Your task to perform on an android device: Open network settings Image 0: 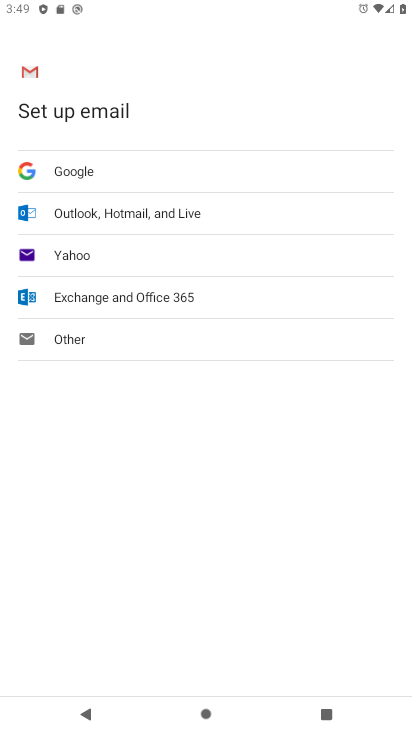
Step 0: press home button
Your task to perform on an android device: Open network settings Image 1: 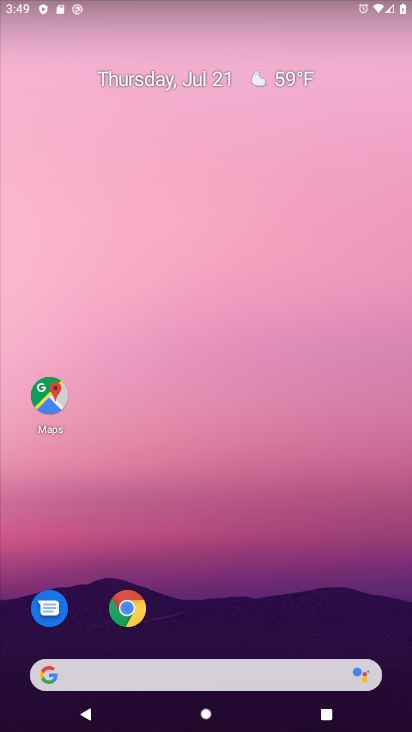
Step 1: drag from (212, 680) to (283, 156)
Your task to perform on an android device: Open network settings Image 2: 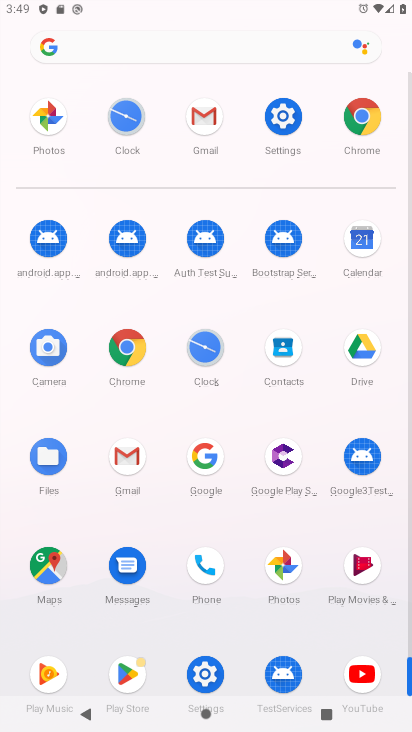
Step 2: click (288, 117)
Your task to perform on an android device: Open network settings Image 3: 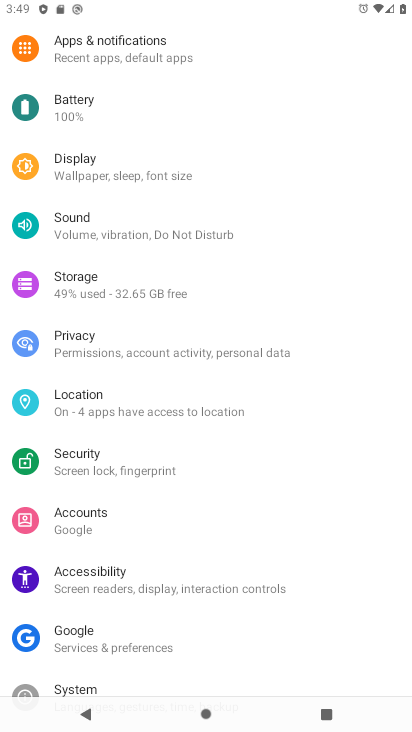
Step 3: drag from (133, 93) to (117, 511)
Your task to perform on an android device: Open network settings Image 4: 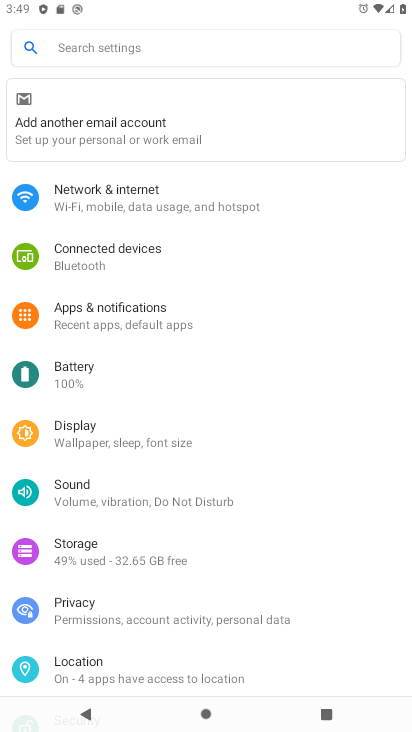
Step 4: click (150, 200)
Your task to perform on an android device: Open network settings Image 5: 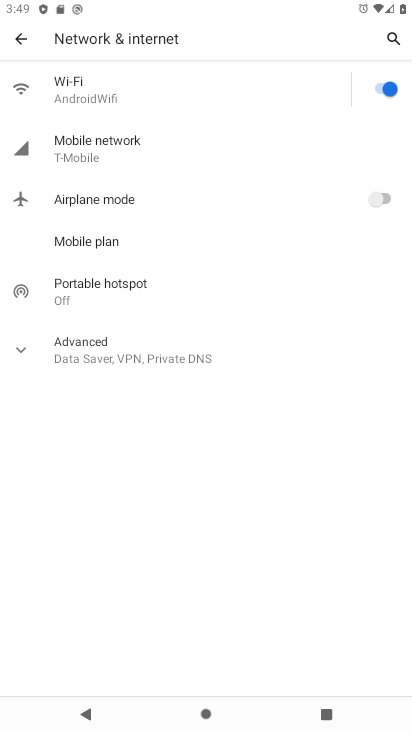
Step 5: task complete